Your task to perform on an android device: see tabs open on other devices in the chrome app Image 0: 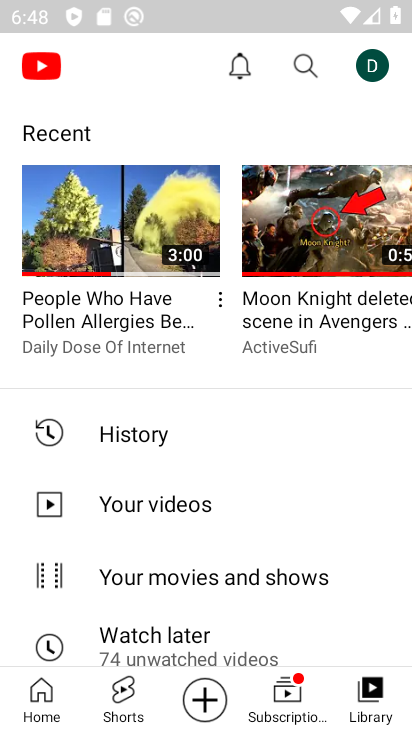
Step 0: press home button
Your task to perform on an android device: see tabs open on other devices in the chrome app Image 1: 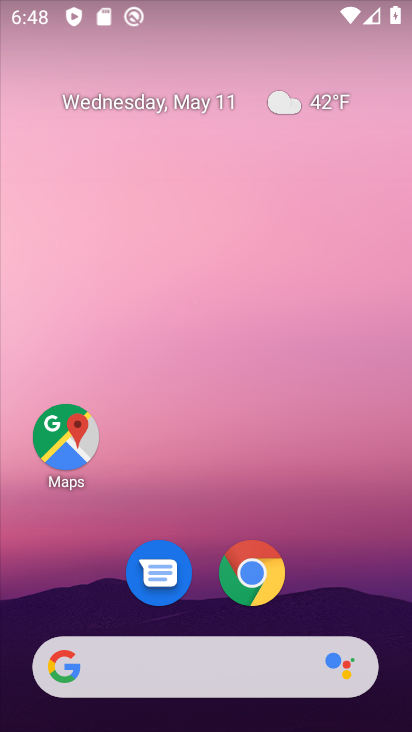
Step 1: click (255, 597)
Your task to perform on an android device: see tabs open on other devices in the chrome app Image 2: 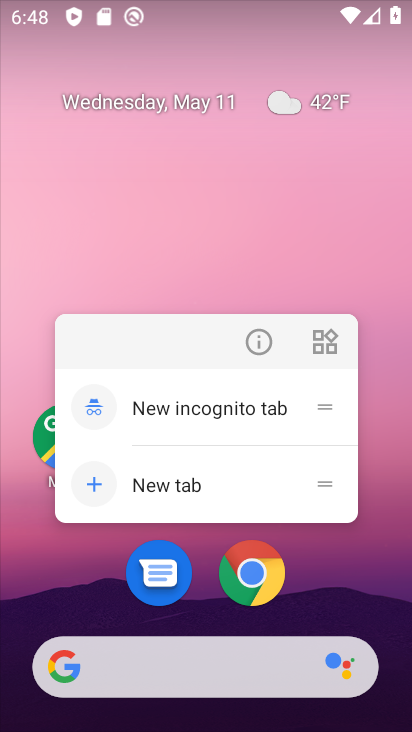
Step 2: click (250, 571)
Your task to perform on an android device: see tabs open on other devices in the chrome app Image 3: 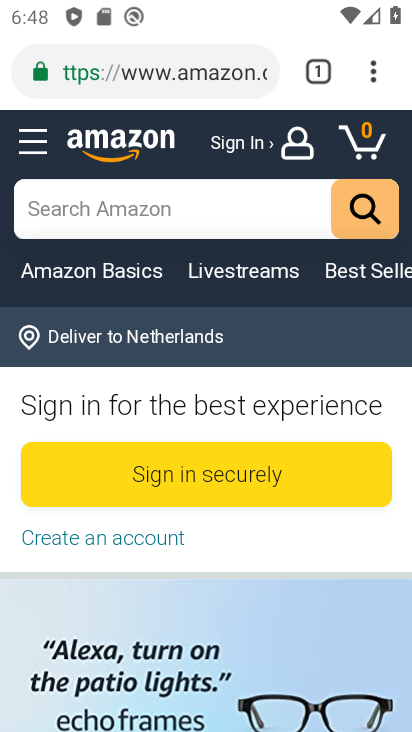
Step 3: click (372, 72)
Your task to perform on an android device: see tabs open on other devices in the chrome app Image 4: 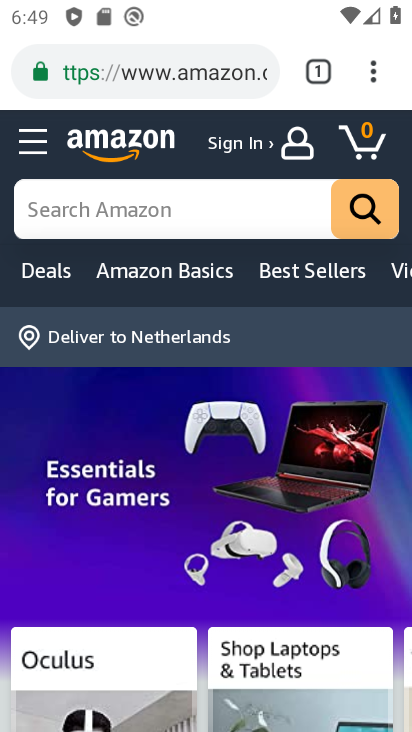
Step 4: click (372, 71)
Your task to perform on an android device: see tabs open on other devices in the chrome app Image 5: 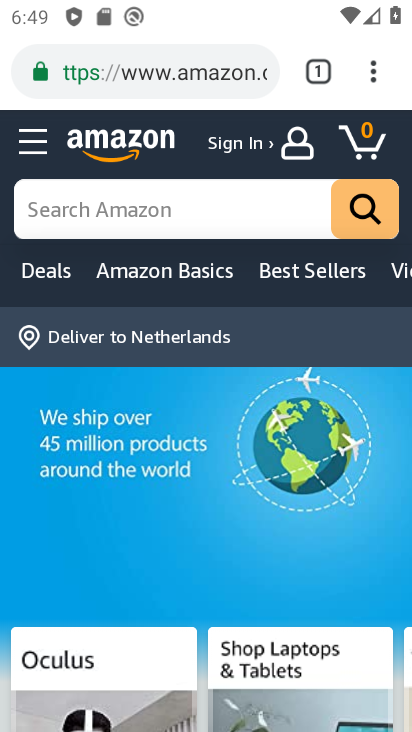
Step 5: click (376, 74)
Your task to perform on an android device: see tabs open on other devices in the chrome app Image 6: 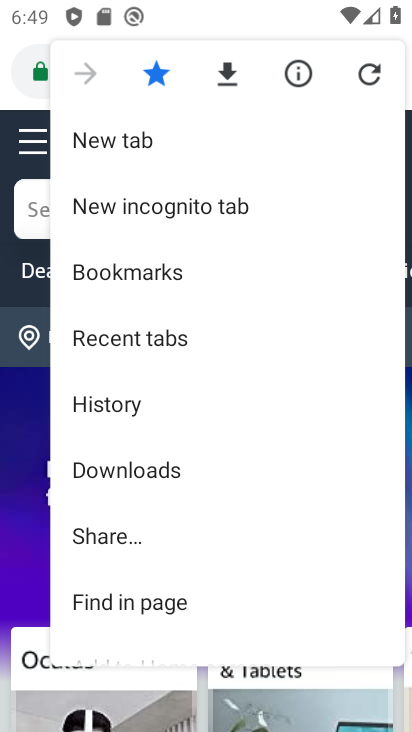
Step 6: click (154, 341)
Your task to perform on an android device: see tabs open on other devices in the chrome app Image 7: 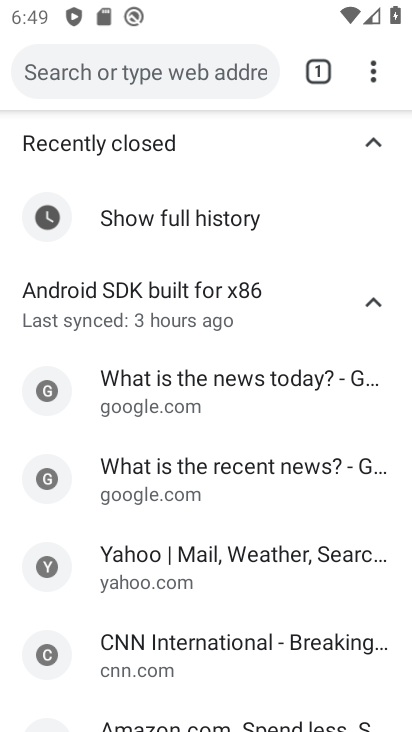
Step 7: task complete